Your task to perform on an android device: Go to Google Image 0: 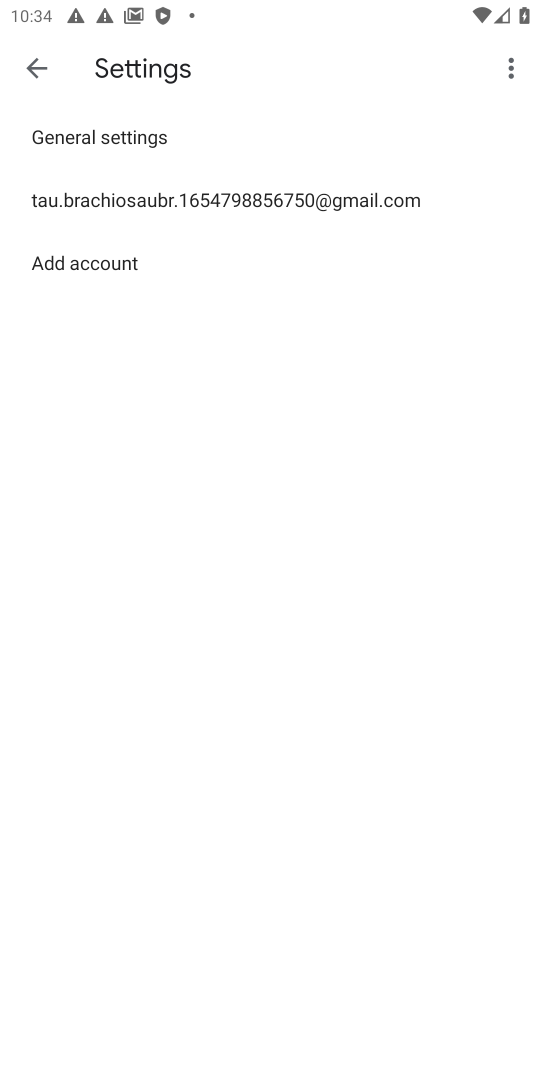
Step 0: drag from (259, 967) to (249, 118)
Your task to perform on an android device: Go to Google Image 1: 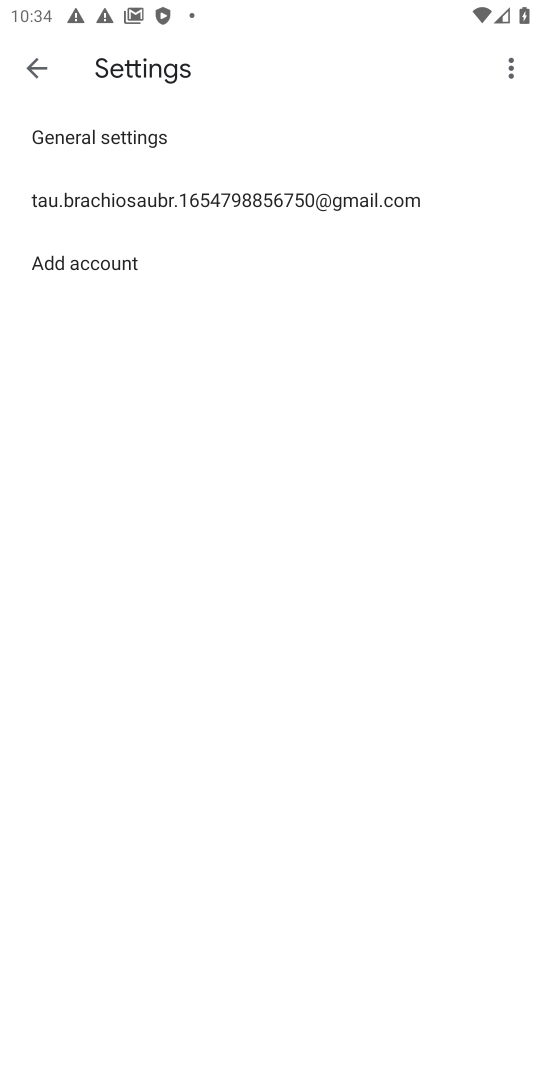
Step 1: press home button
Your task to perform on an android device: Go to Google Image 2: 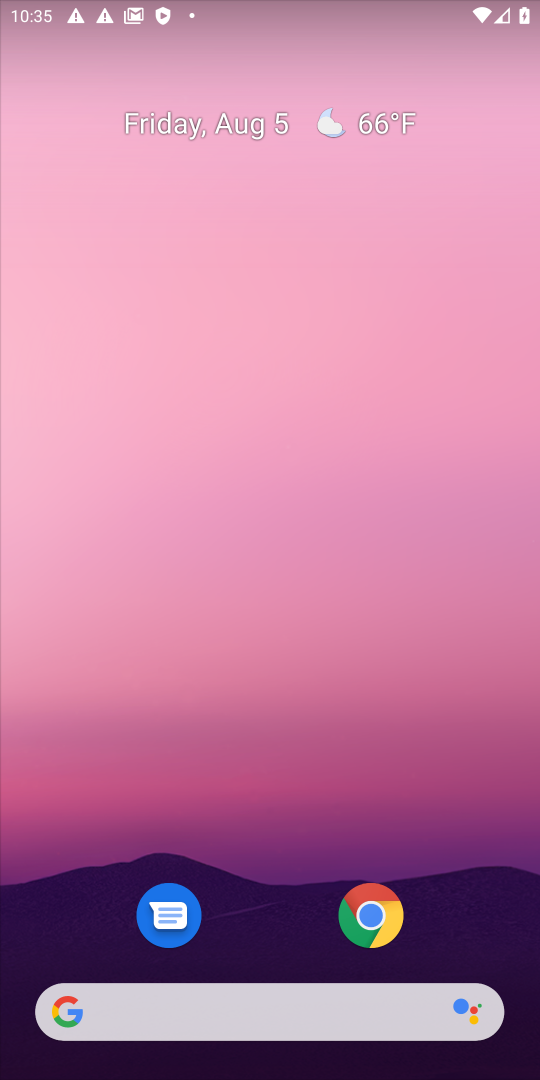
Step 2: drag from (254, 680) to (215, 88)
Your task to perform on an android device: Go to Google Image 3: 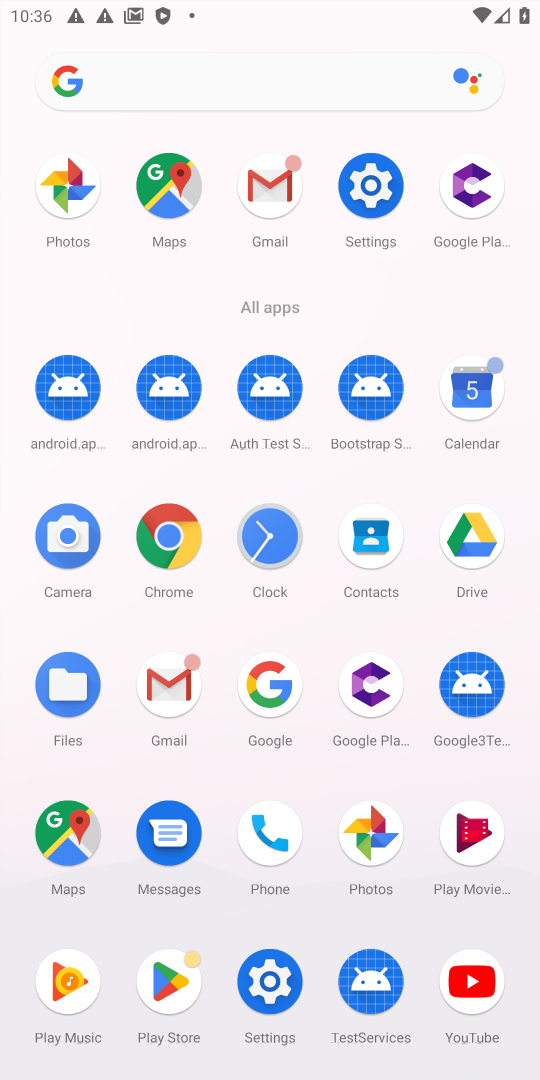
Step 3: click (278, 687)
Your task to perform on an android device: Go to Google Image 4: 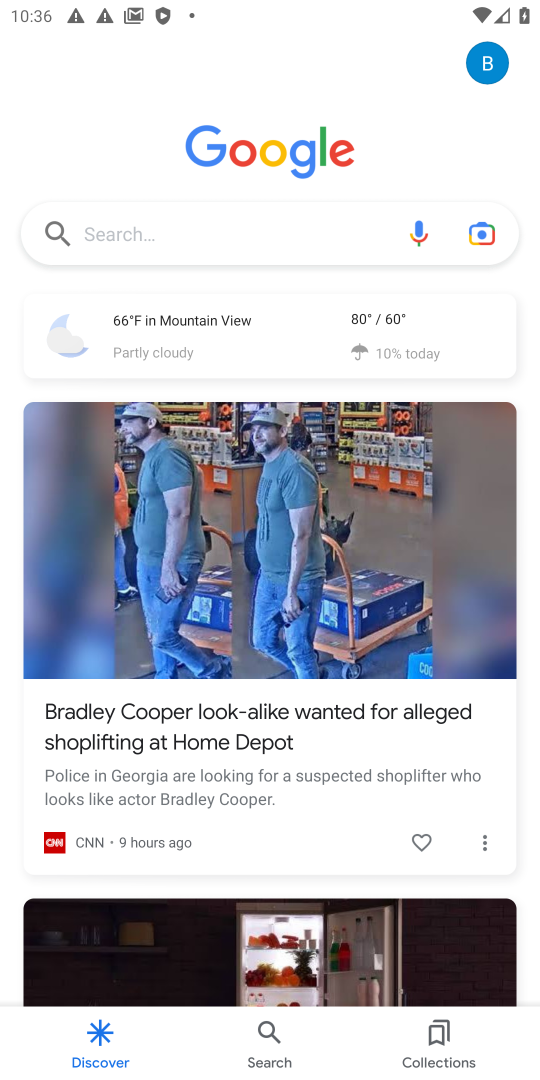
Step 4: task complete